Your task to perform on an android device: Open sound settings Image 0: 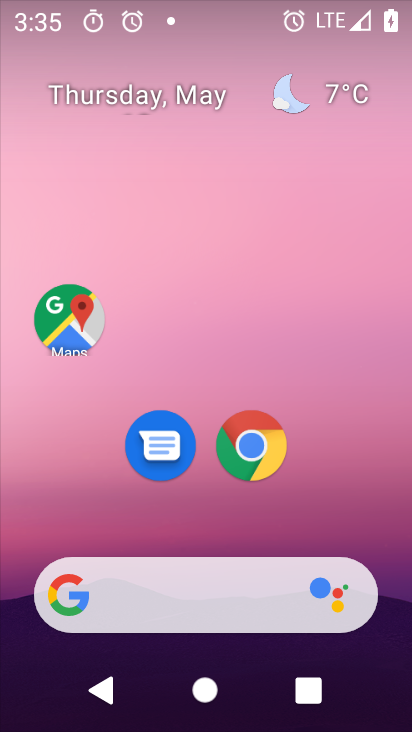
Step 0: drag from (354, 537) to (328, 0)
Your task to perform on an android device: Open sound settings Image 1: 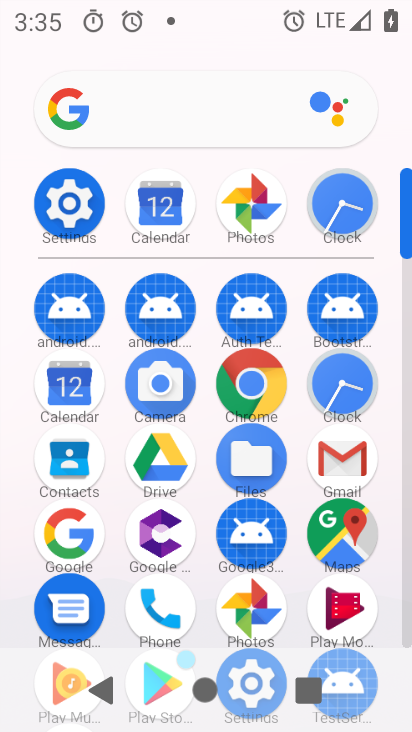
Step 1: click (74, 206)
Your task to perform on an android device: Open sound settings Image 2: 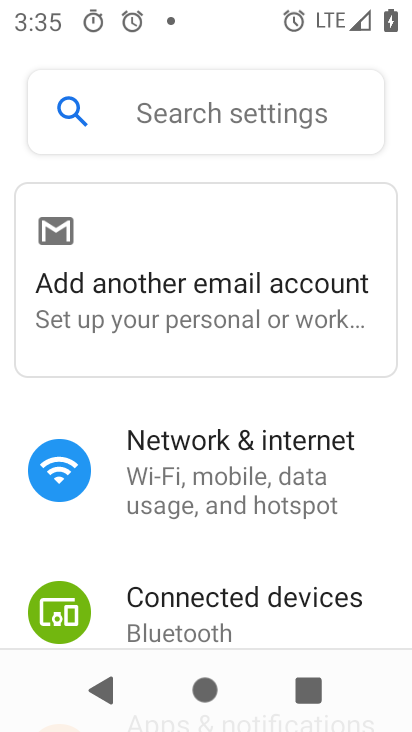
Step 2: drag from (359, 521) to (364, 96)
Your task to perform on an android device: Open sound settings Image 3: 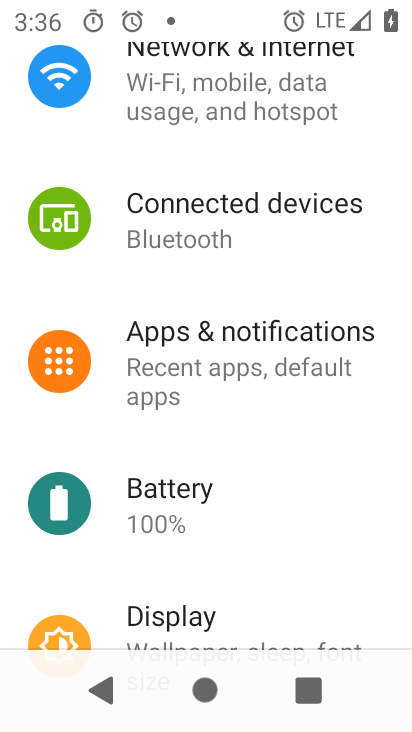
Step 3: drag from (390, 506) to (336, 171)
Your task to perform on an android device: Open sound settings Image 4: 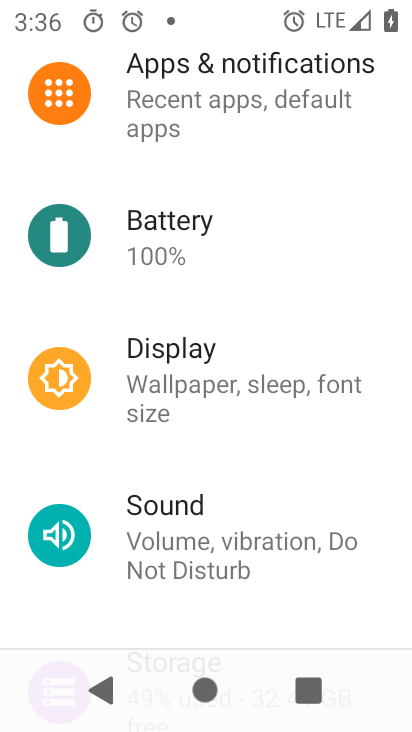
Step 4: click (196, 524)
Your task to perform on an android device: Open sound settings Image 5: 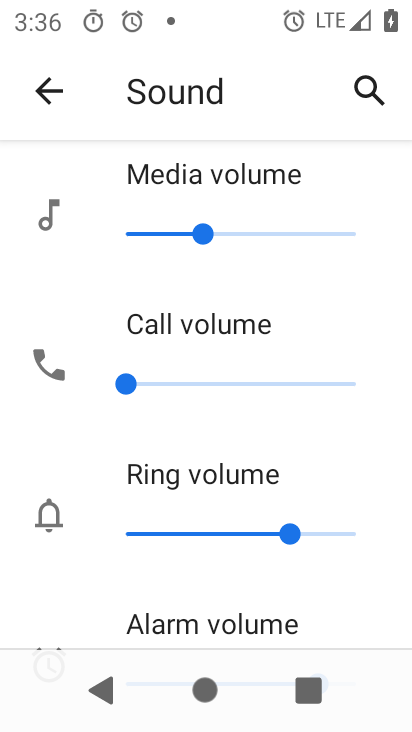
Step 5: task complete